Your task to perform on an android device: turn notification dots on Image 0: 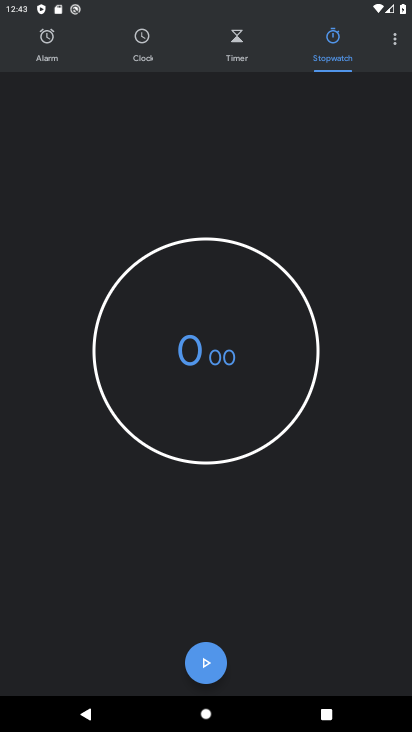
Step 0: press home button
Your task to perform on an android device: turn notification dots on Image 1: 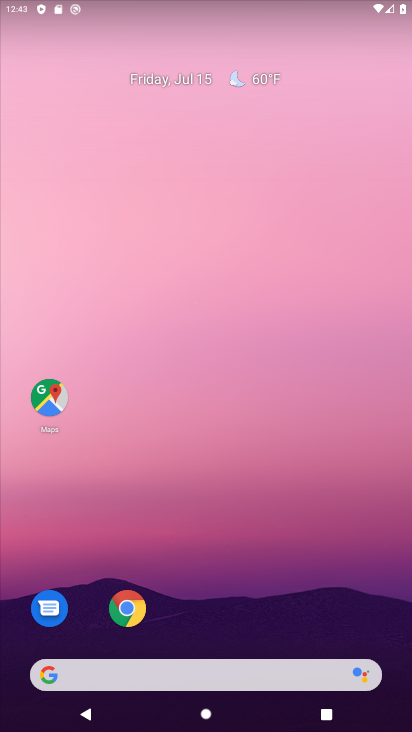
Step 1: drag from (233, 533) to (260, 171)
Your task to perform on an android device: turn notification dots on Image 2: 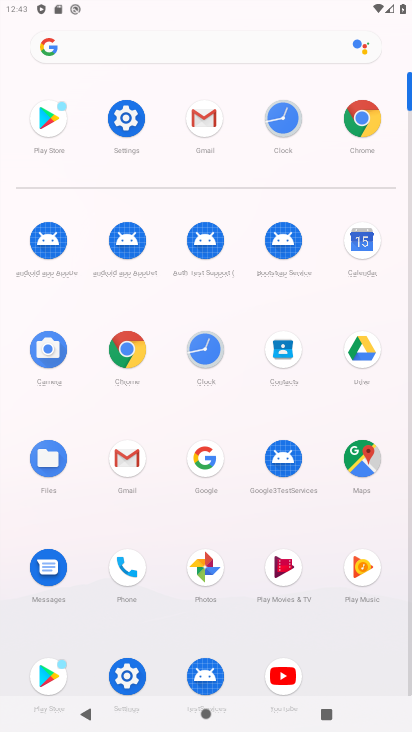
Step 2: click (113, 676)
Your task to perform on an android device: turn notification dots on Image 3: 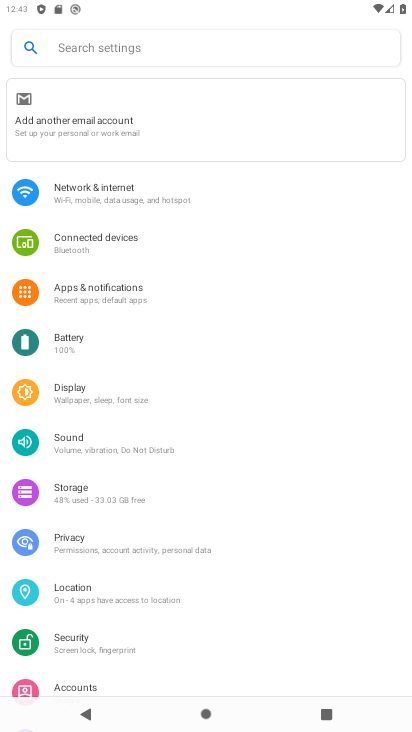
Step 3: drag from (128, 397) to (144, 322)
Your task to perform on an android device: turn notification dots on Image 4: 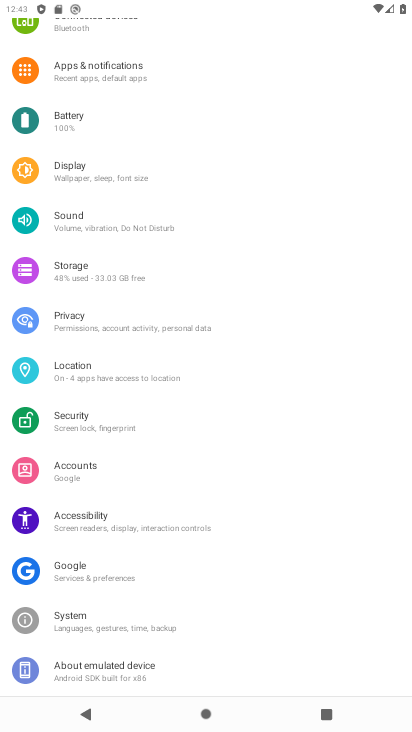
Step 4: drag from (194, 636) to (219, 481)
Your task to perform on an android device: turn notification dots on Image 5: 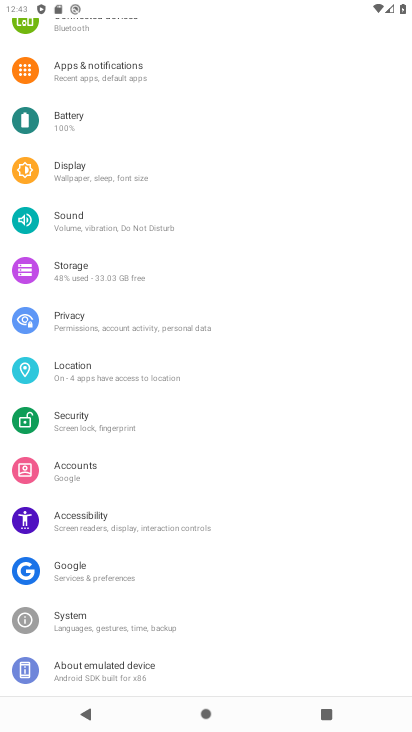
Step 5: click (95, 66)
Your task to perform on an android device: turn notification dots on Image 6: 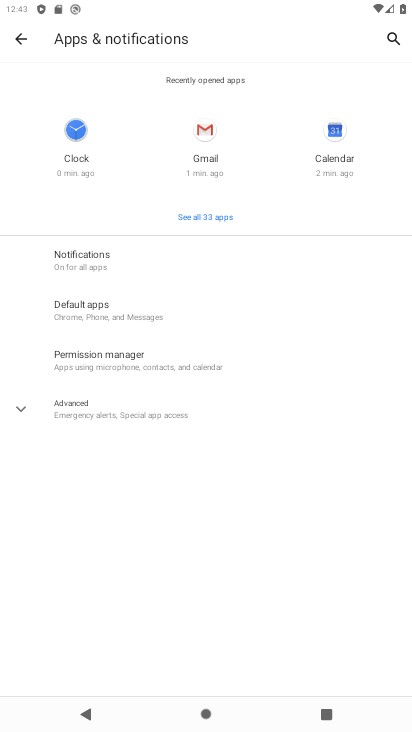
Step 6: click (69, 249)
Your task to perform on an android device: turn notification dots on Image 7: 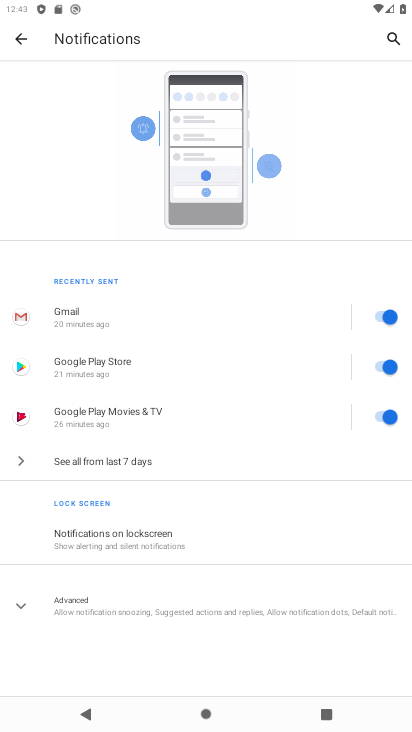
Step 7: click (133, 536)
Your task to perform on an android device: turn notification dots on Image 8: 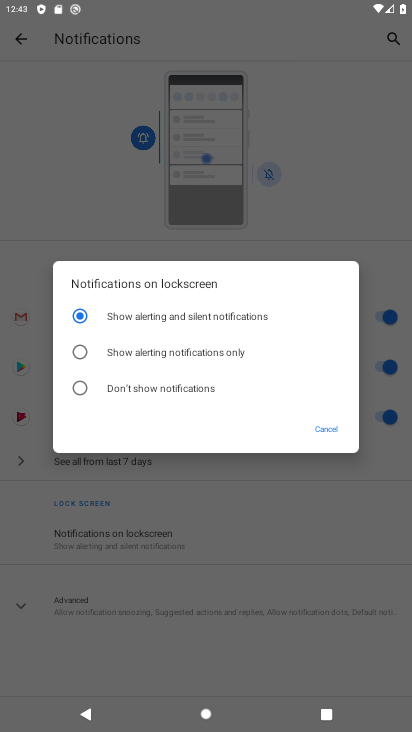
Step 8: click (311, 431)
Your task to perform on an android device: turn notification dots on Image 9: 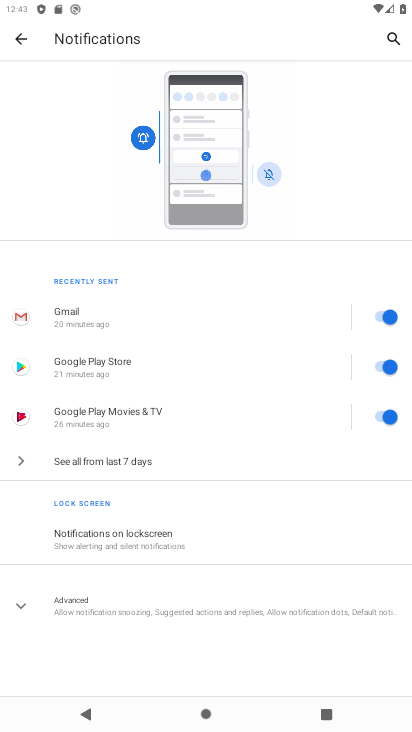
Step 9: click (129, 606)
Your task to perform on an android device: turn notification dots on Image 10: 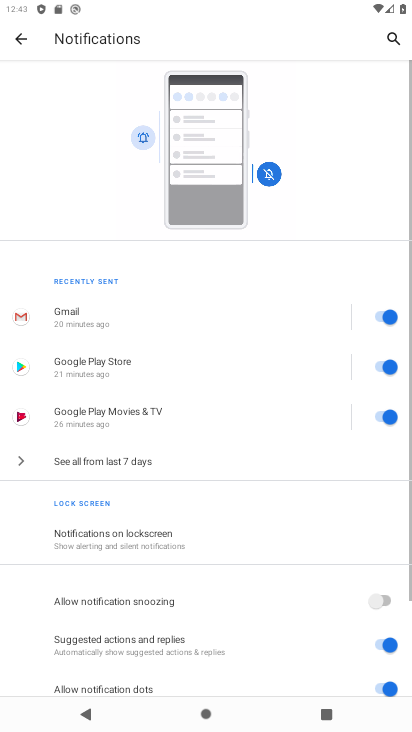
Step 10: task complete